Your task to perform on an android device: Search for seafood restaurants on Google Maps Image 0: 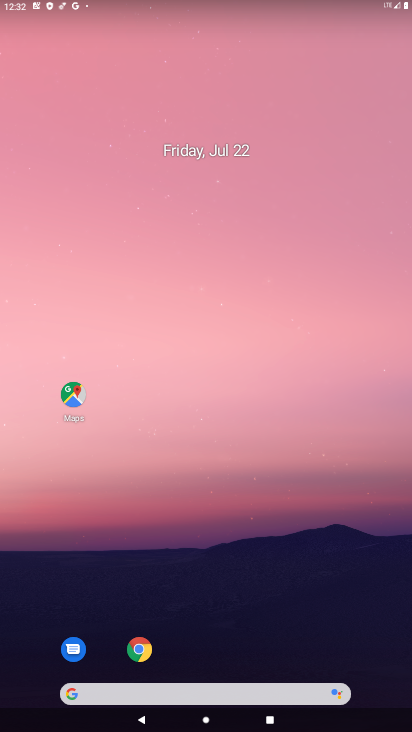
Step 0: drag from (230, 724) to (214, 234)
Your task to perform on an android device: Search for seafood restaurants on Google Maps Image 1: 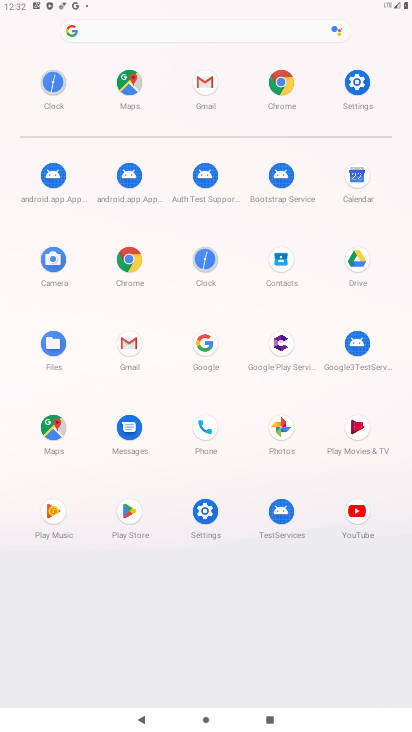
Step 1: click (50, 429)
Your task to perform on an android device: Search for seafood restaurants on Google Maps Image 2: 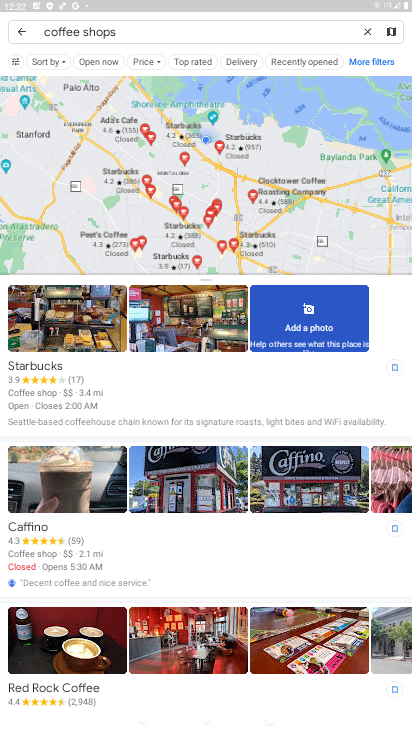
Step 2: click (366, 30)
Your task to perform on an android device: Search for seafood restaurants on Google Maps Image 3: 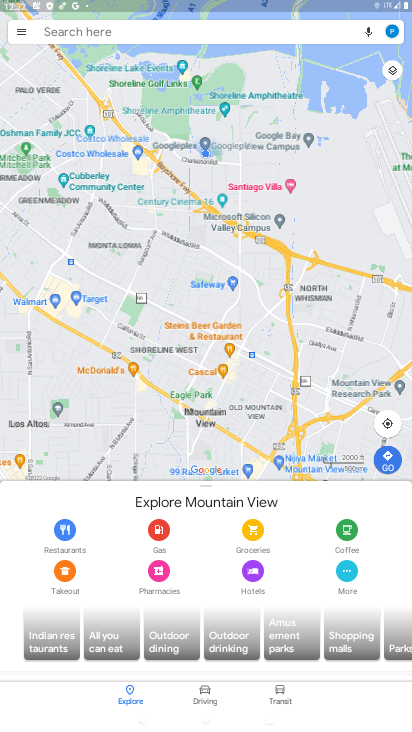
Step 3: click (255, 33)
Your task to perform on an android device: Search for seafood restaurants on Google Maps Image 4: 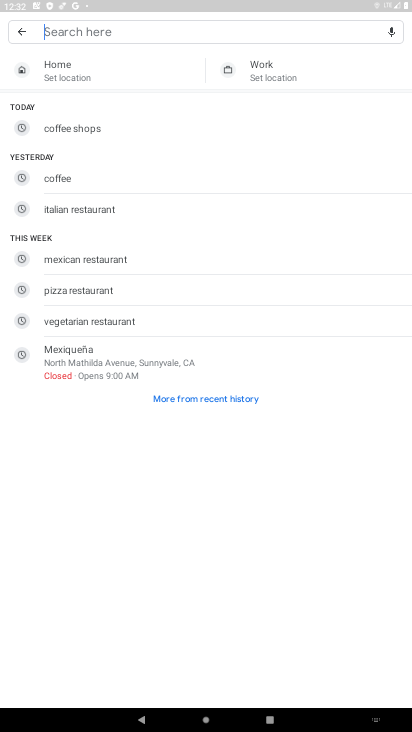
Step 4: type "seafood restaurants"
Your task to perform on an android device: Search for seafood restaurants on Google Maps Image 5: 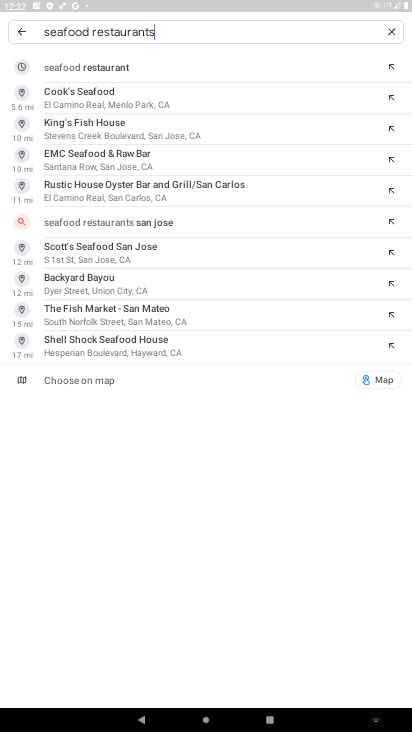
Step 5: click (80, 63)
Your task to perform on an android device: Search for seafood restaurants on Google Maps Image 6: 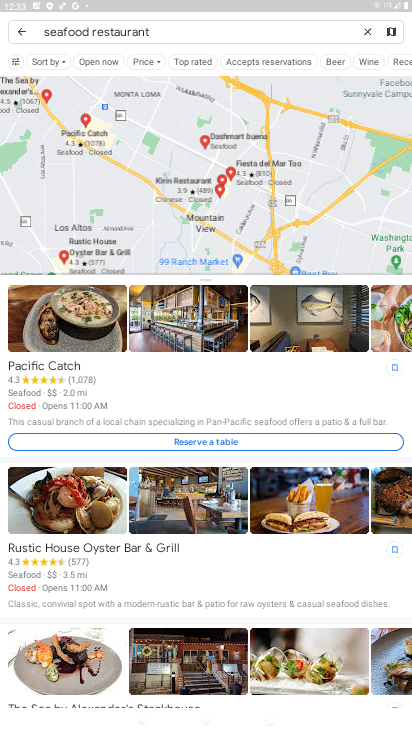
Step 6: task complete